Your task to perform on an android device: move a message to another label in the gmail app Image 0: 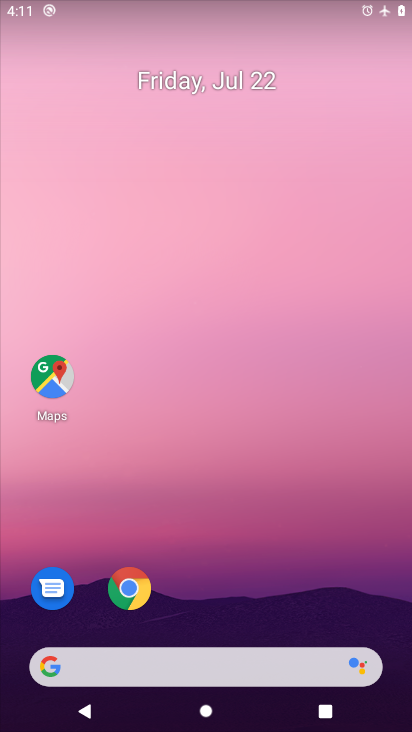
Step 0: drag from (235, 588) to (242, 163)
Your task to perform on an android device: move a message to another label in the gmail app Image 1: 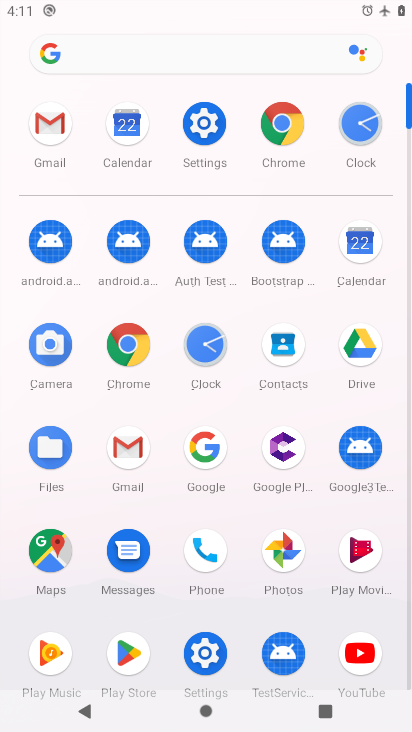
Step 1: click (142, 437)
Your task to perform on an android device: move a message to another label in the gmail app Image 2: 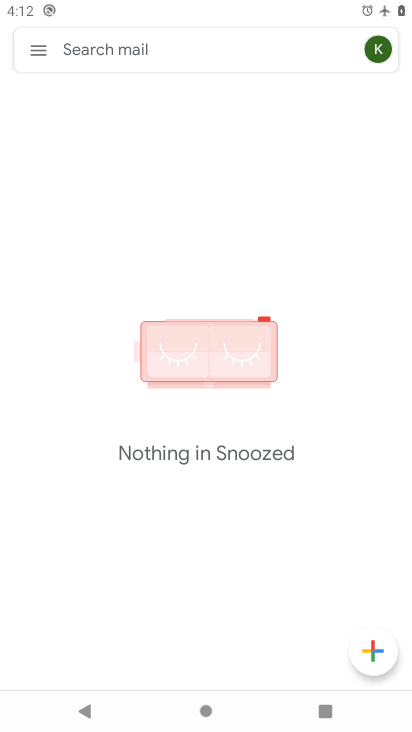
Step 2: task complete